Your task to perform on an android device: change notification settings in the gmail app Image 0: 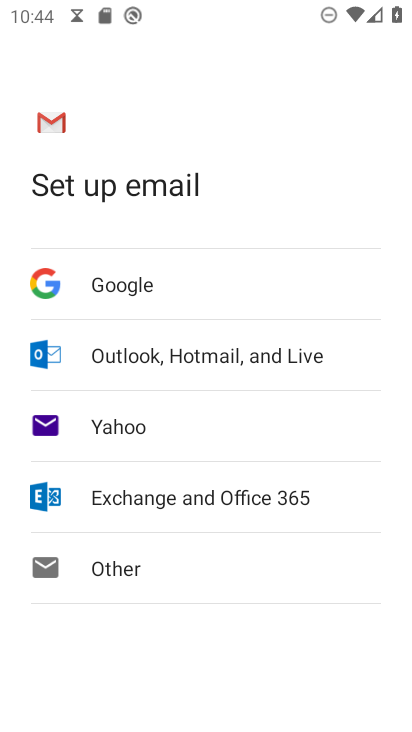
Step 0: press home button
Your task to perform on an android device: change notification settings in the gmail app Image 1: 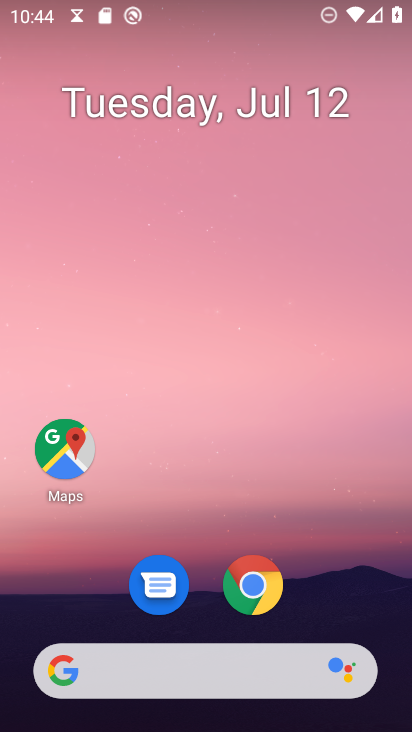
Step 1: drag from (172, 682) to (360, 115)
Your task to perform on an android device: change notification settings in the gmail app Image 2: 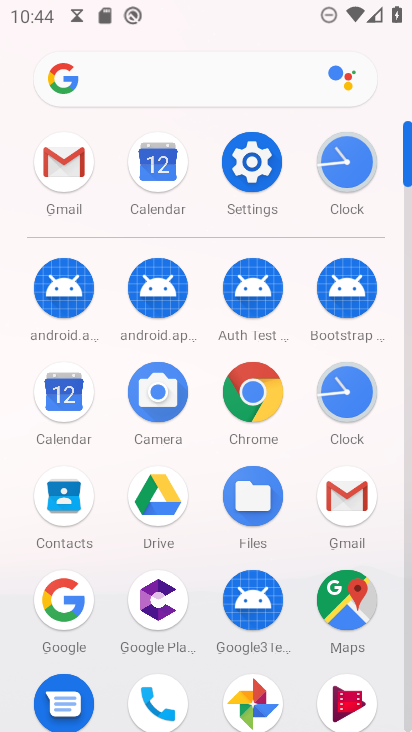
Step 2: click (66, 168)
Your task to perform on an android device: change notification settings in the gmail app Image 3: 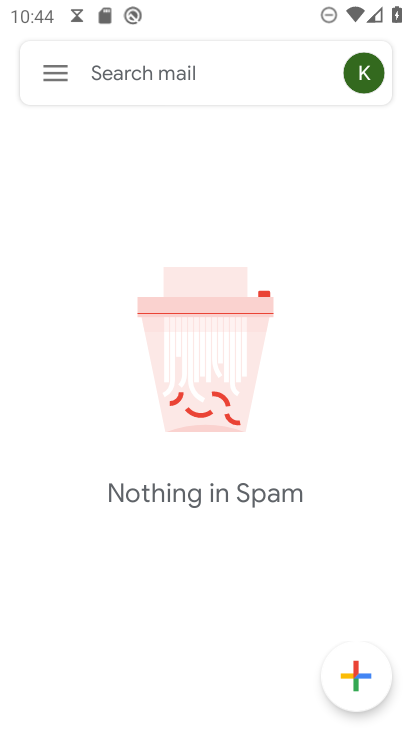
Step 3: click (53, 71)
Your task to perform on an android device: change notification settings in the gmail app Image 4: 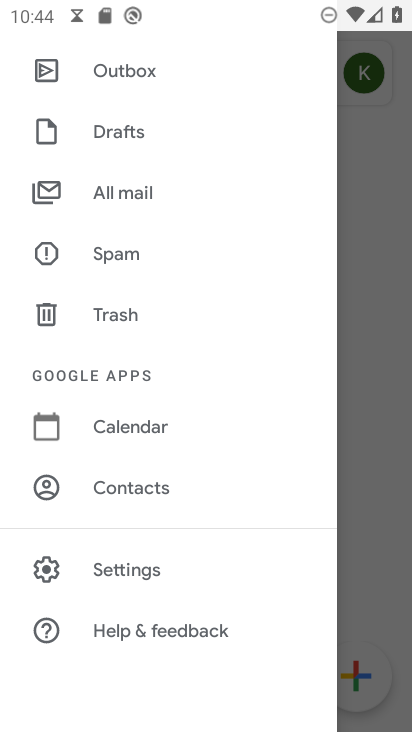
Step 4: click (128, 572)
Your task to perform on an android device: change notification settings in the gmail app Image 5: 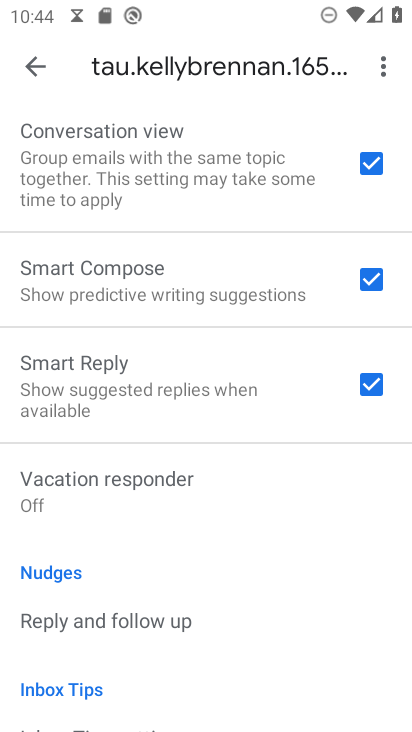
Step 5: drag from (269, 123) to (259, 602)
Your task to perform on an android device: change notification settings in the gmail app Image 6: 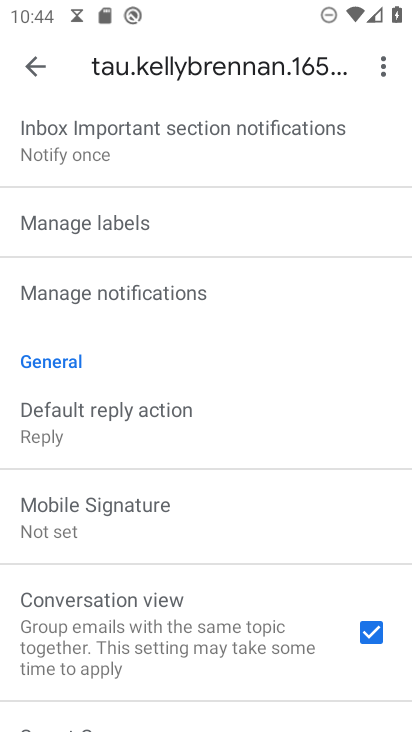
Step 6: drag from (290, 165) to (257, 670)
Your task to perform on an android device: change notification settings in the gmail app Image 7: 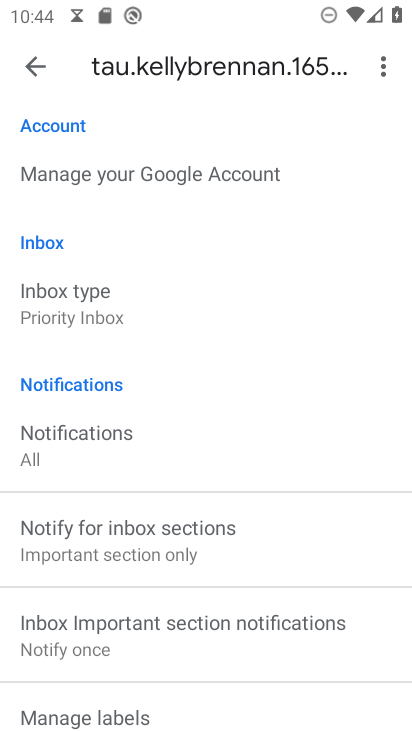
Step 7: click (106, 437)
Your task to perform on an android device: change notification settings in the gmail app Image 8: 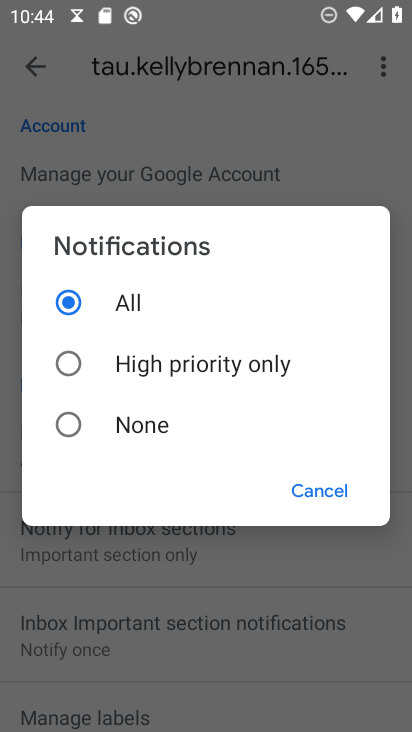
Step 8: click (62, 422)
Your task to perform on an android device: change notification settings in the gmail app Image 9: 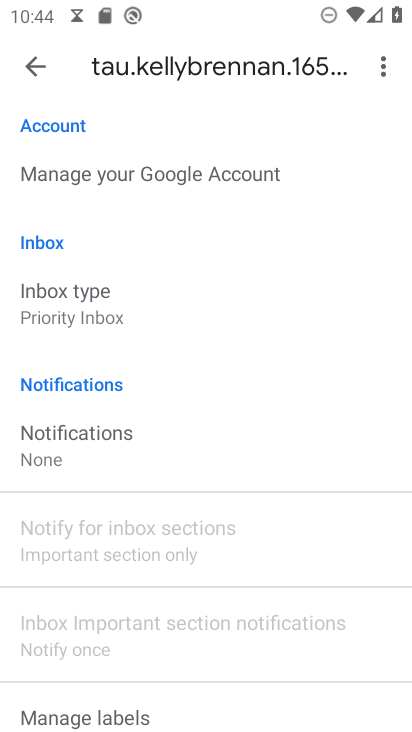
Step 9: task complete